Your task to perform on an android device: set an alarm Image 0: 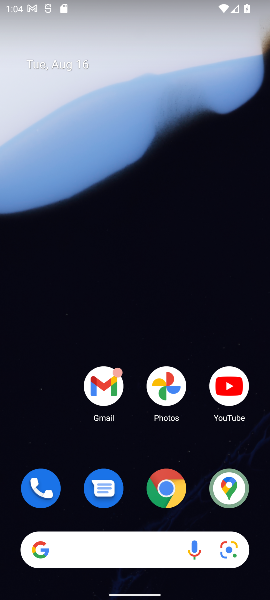
Step 0: drag from (57, 426) to (71, 124)
Your task to perform on an android device: set an alarm Image 1: 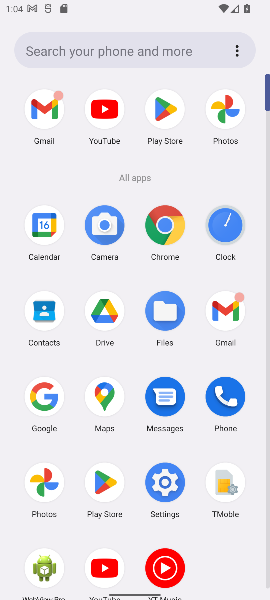
Step 1: click (229, 220)
Your task to perform on an android device: set an alarm Image 2: 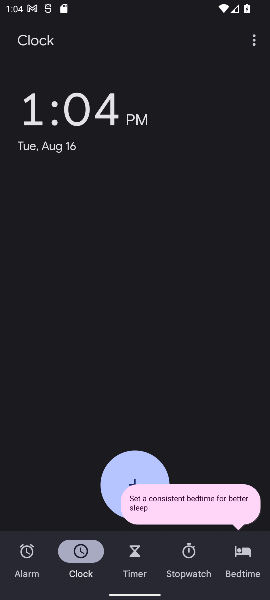
Step 2: click (128, 482)
Your task to perform on an android device: set an alarm Image 3: 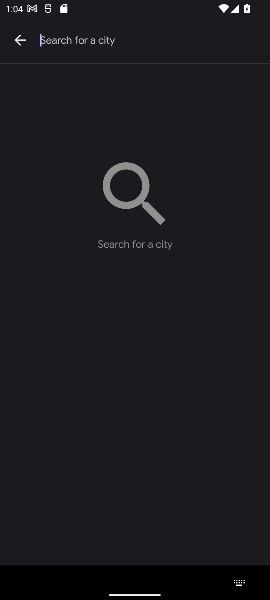
Step 3: click (24, 39)
Your task to perform on an android device: set an alarm Image 4: 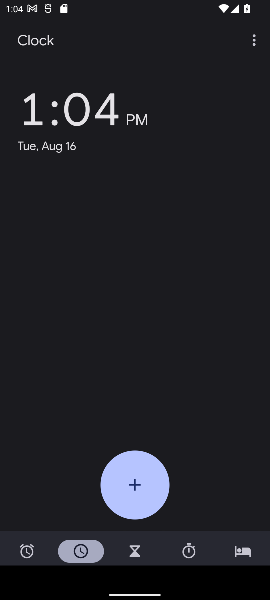
Step 4: task complete